Your task to perform on an android device: When is my next appointment? Image 0: 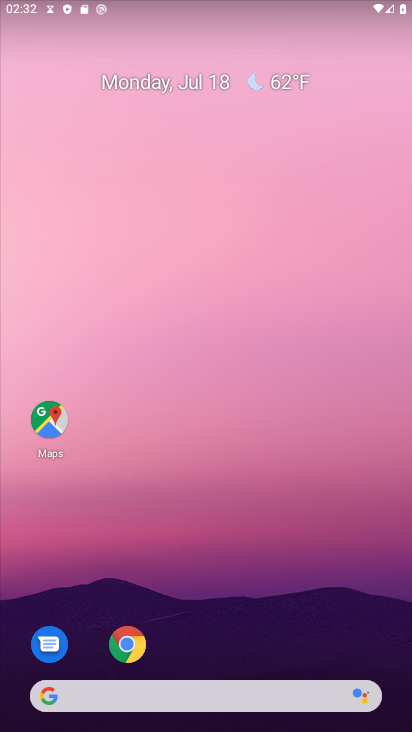
Step 0: drag from (268, 673) to (290, 89)
Your task to perform on an android device: When is my next appointment? Image 1: 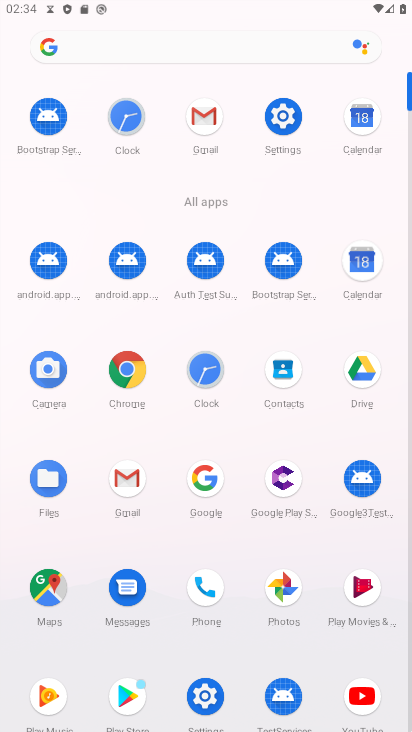
Step 1: click (371, 269)
Your task to perform on an android device: When is my next appointment? Image 2: 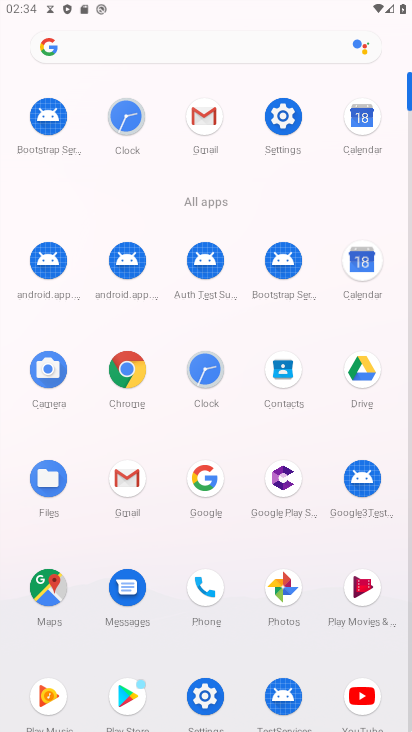
Step 2: click (370, 269)
Your task to perform on an android device: When is my next appointment? Image 3: 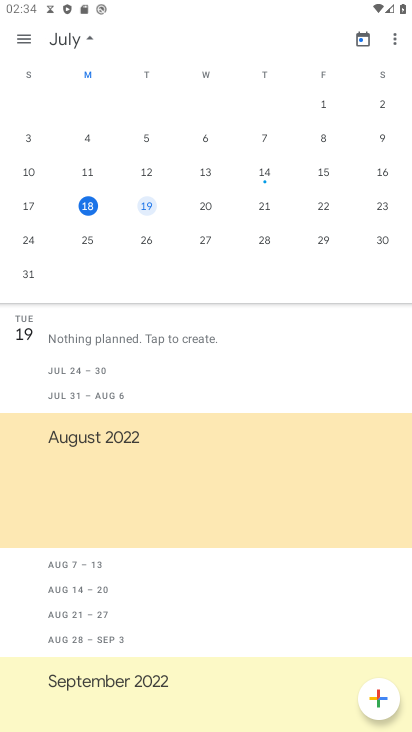
Step 3: task complete